Your task to perform on an android device: Open eBay Image 0: 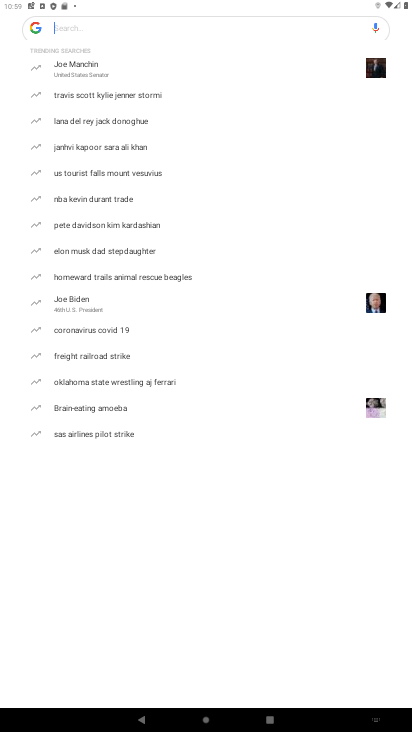
Step 0: press home button
Your task to perform on an android device: Open eBay Image 1: 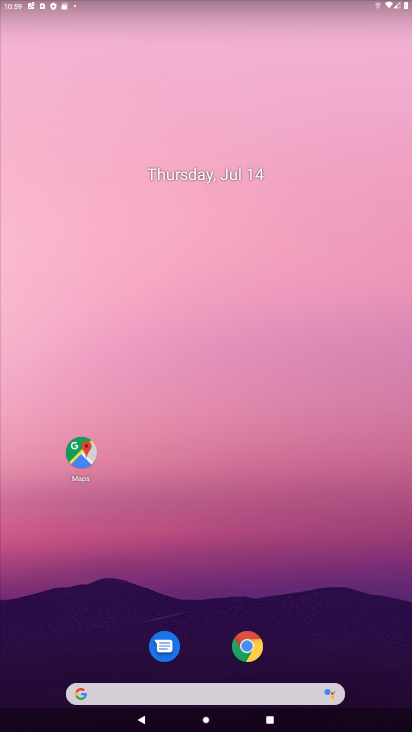
Step 1: click (240, 643)
Your task to perform on an android device: Open eBay Image 2: 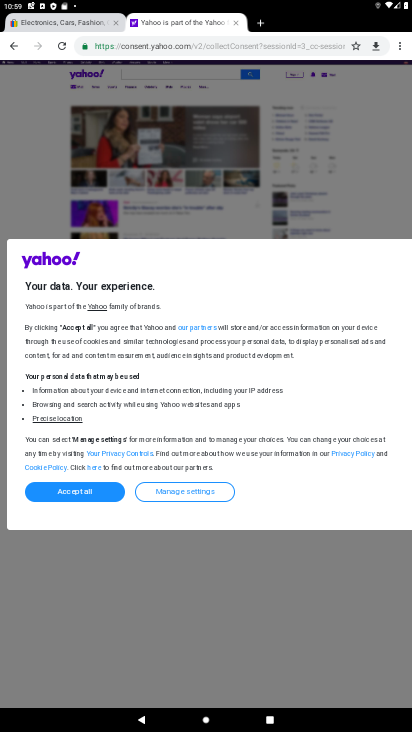
Step 2: click (255, 24)
Your task to perform on an android device: Open eBay Image 3: 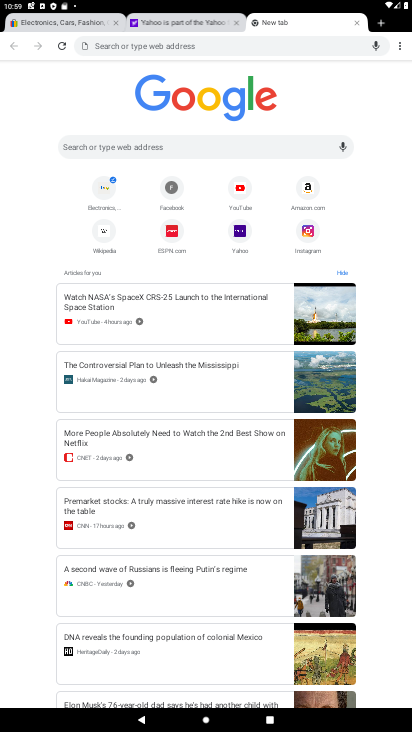
Step 3: click (208, 147)
Your task to perform on an android device: Open eBay Image 4: 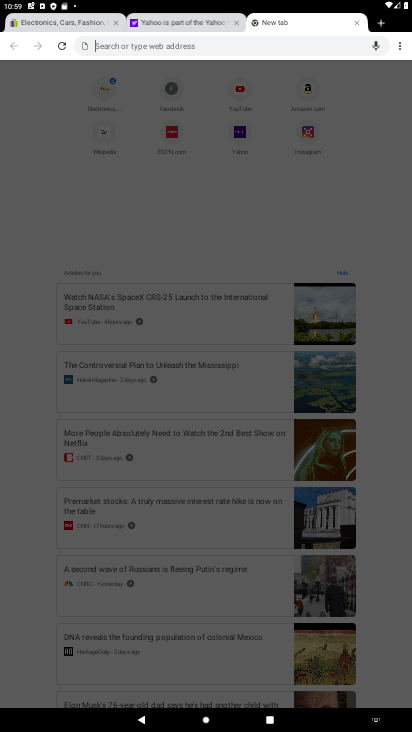
Step 4: type "eBay"
Your task to perform on an android device: Open eBay Image 5: 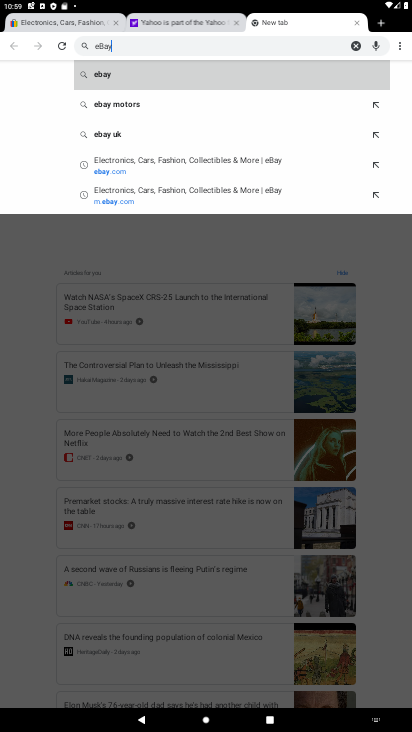
Step 5: click (152, 80)
Your task to perform on an android device: Open eBay Image 6: 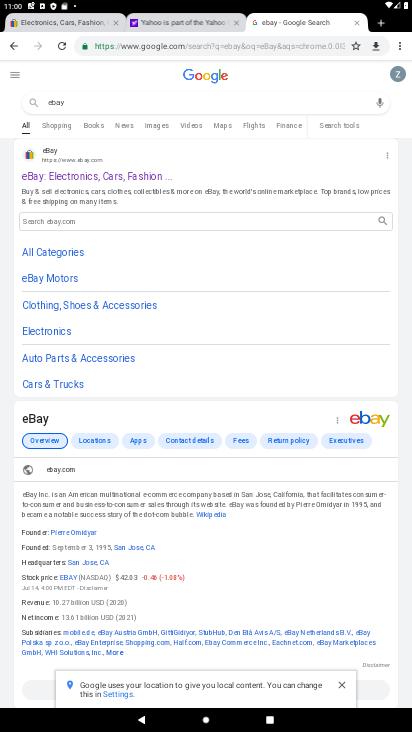
Step 6: click (52, 158)
Your task to perform on an android device: Open eBay Image 7: 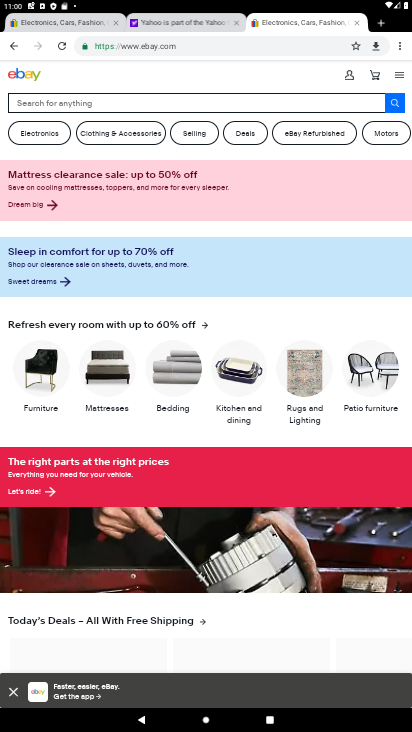
Step 7: task complete